Your task to perform on an android device: set the timer Image 0: 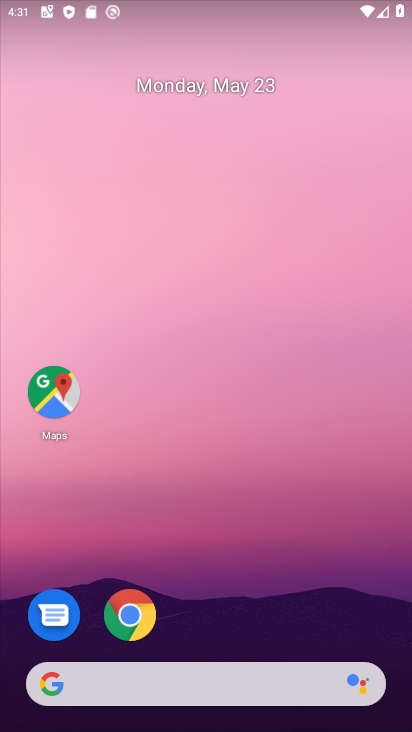
Step 0: drag from (239, 601) to (267, 92)
Your task to perform on an android device: set the timer Image 1: 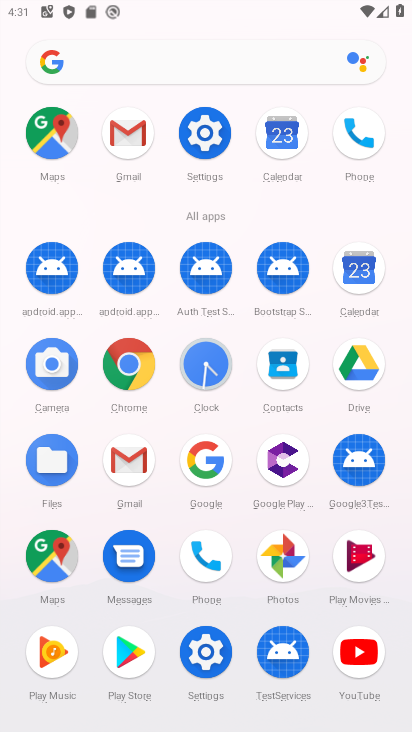
Step 1: click (211, 369)
Your task to perform on an android device: set the timer Image 2: 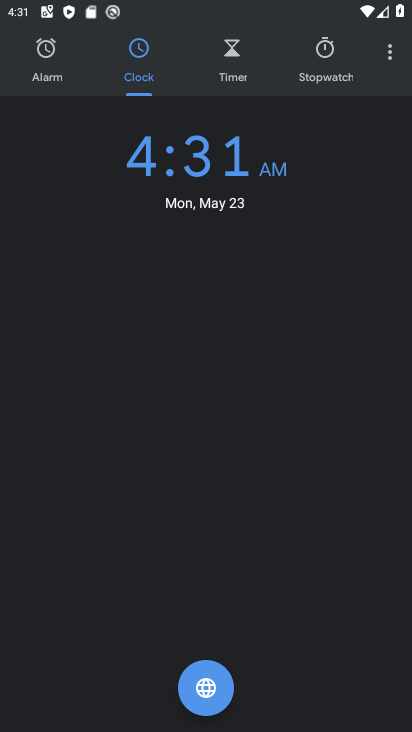
Step 2: click (241, 44)
Your task to perform on an android device: set the timer Image 3: 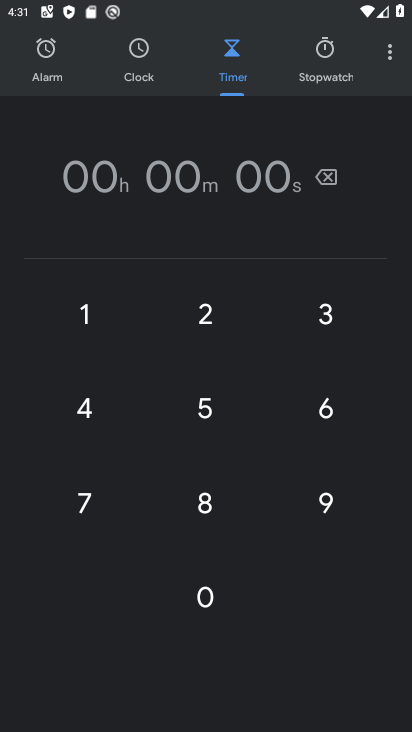
Step 3: click (225, 325)
Your task to perform on an android device: set the timer Image 4: 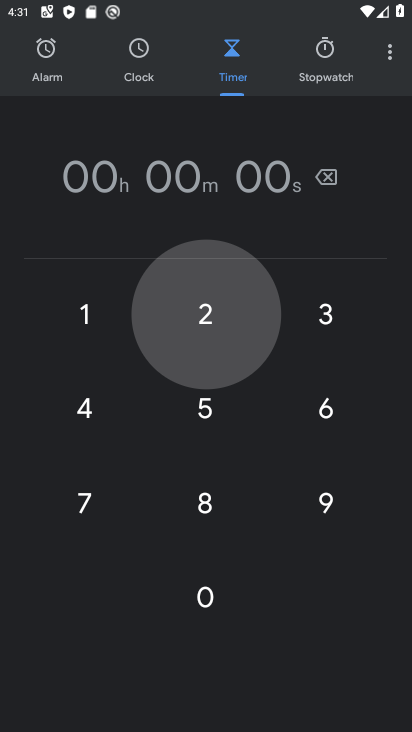
Step 4: click (326, 315)
Your task to perform on an android device: set the timer Image 5: 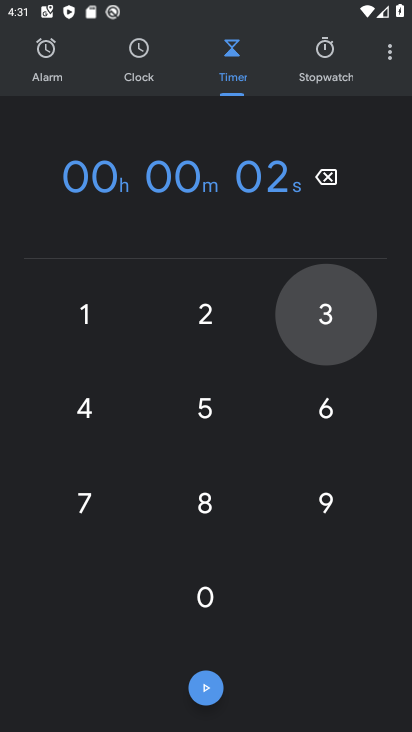
Step 5: click (162, 406)
Your task to perform on an android device: set the timer Image 6: 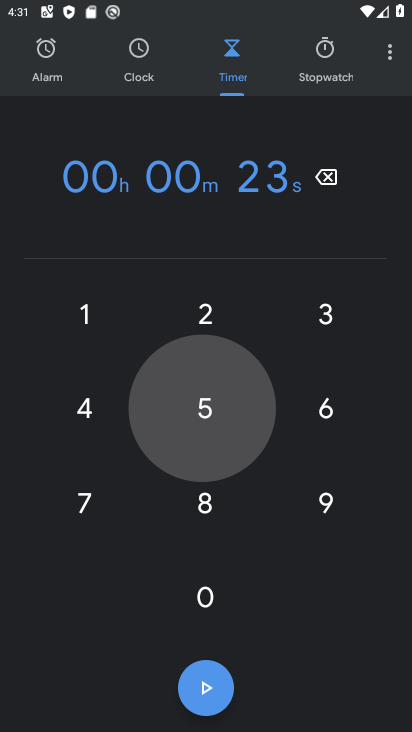
Step 6: click (309, 388)
Your task to perform on an android device: set the timer Image 7: 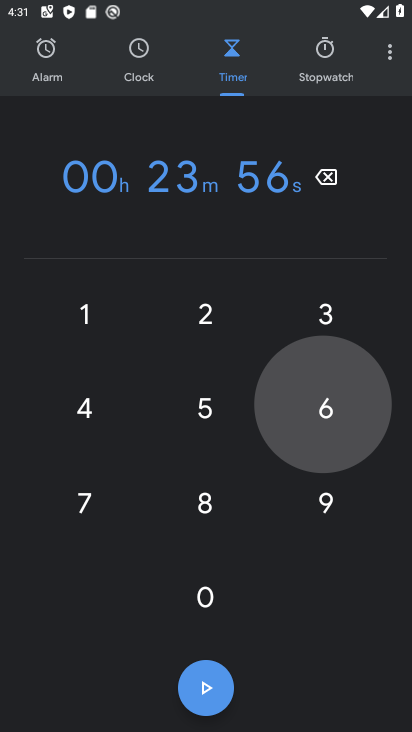
Step 7: click (209, 425)
Your task to perform on an android device: set the timer Image 8: 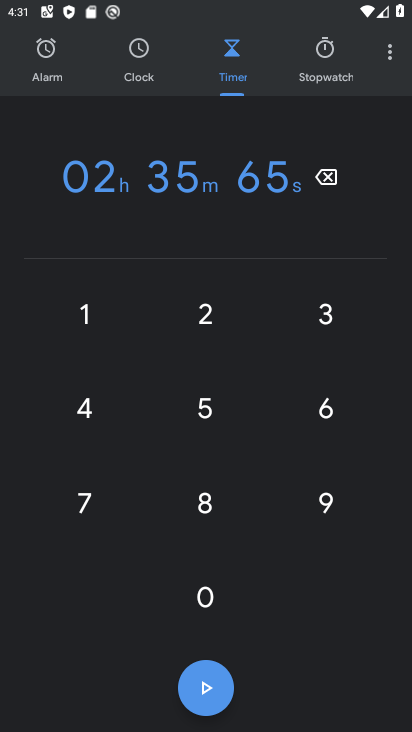
Step 8: task complete